Your task to perform on an android device: Go to CNN.com Image 0: 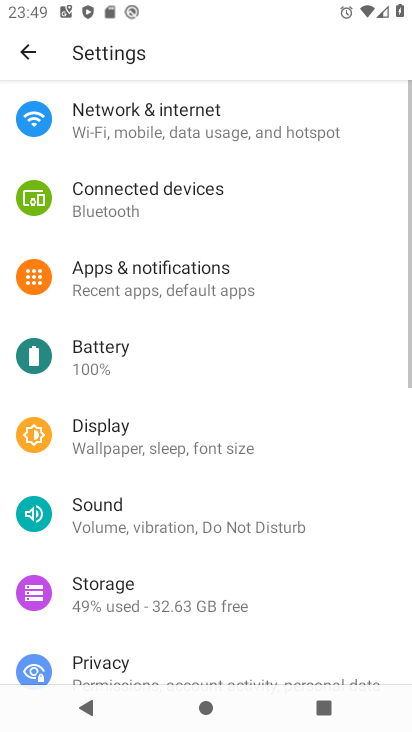
Step 0: press home button
Your task to perform on an android device: Go to CNN.com Image 1: 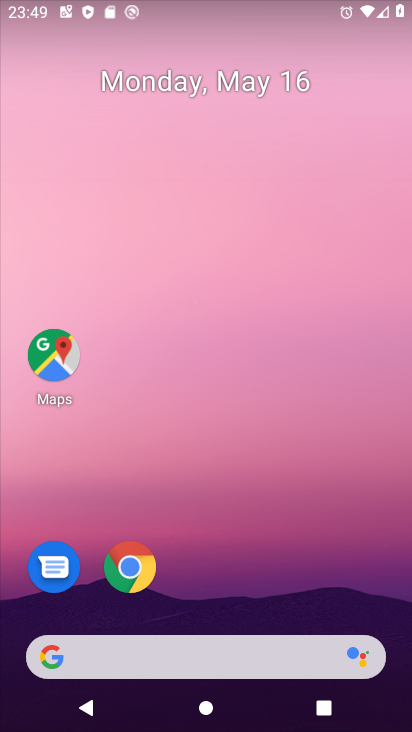
Step 1: click (227, 641)
Your task to perform on an android device: Go to CNN.com Image 2: 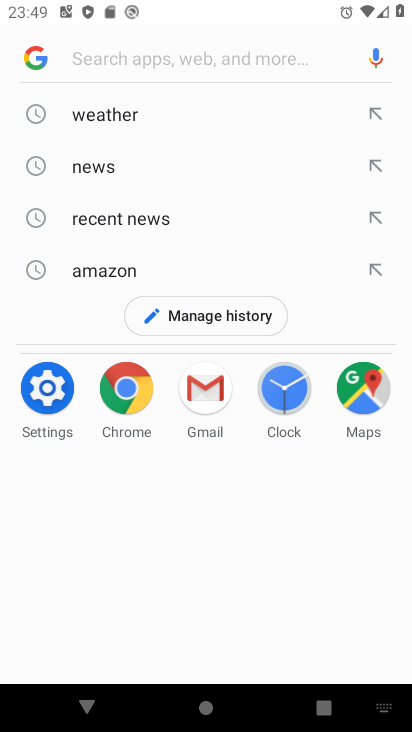
Step 2: click (126, 68)
Your task to perform on an android device: Go to CNN.com Image 3: 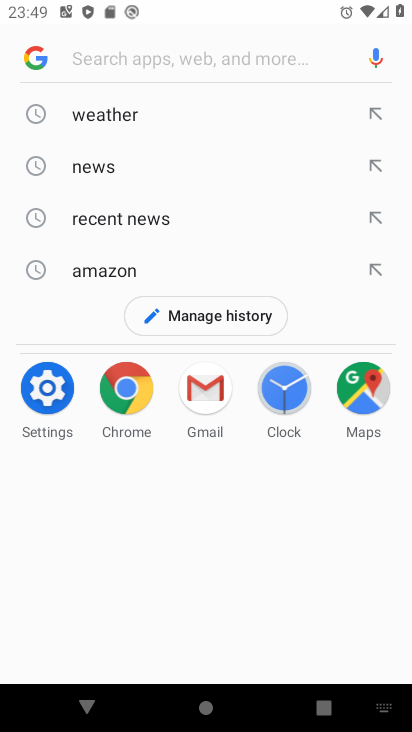
Step 3: type "cnn.com"
Your task to perform on an android device: Go to CNN.com Image 4: 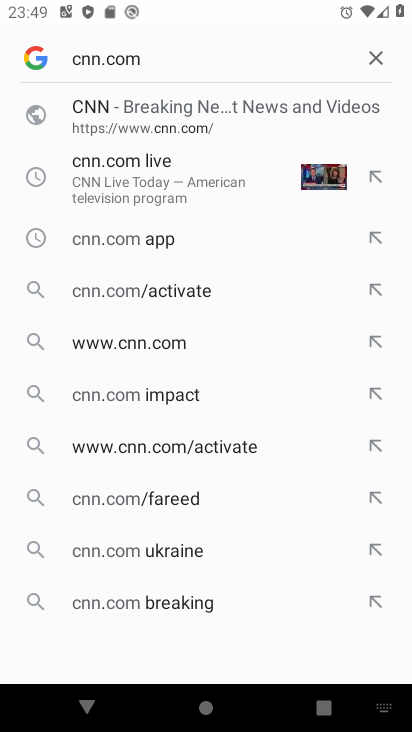
Step 4: click (146, 102)
Your task to perform on an android device: Go to CNN.com Image 5: 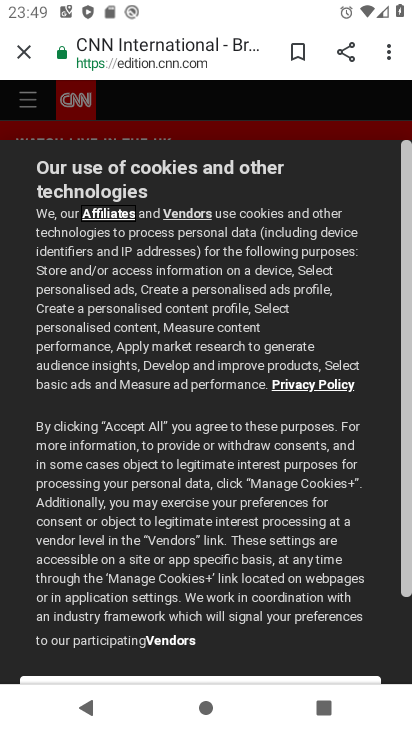
Step 5: task complete